Your task to perform on an android device: Go to notification settings Image 0: 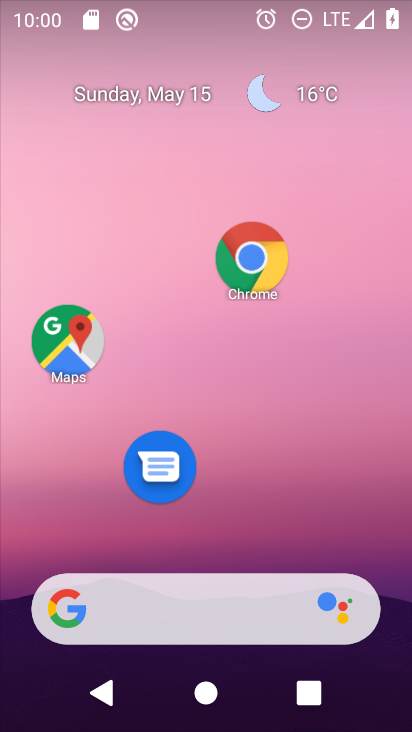
Step 0: drag from (267, 503) to (249, 56)
Your task to perform on an android device: Go to notification settings Image 1: 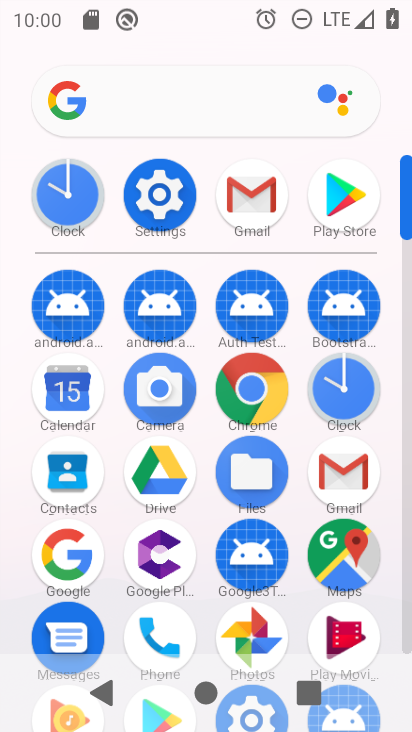
Step 1: click (159, 193)
Your task to perform on an android device: Go to notification settings Image 2: 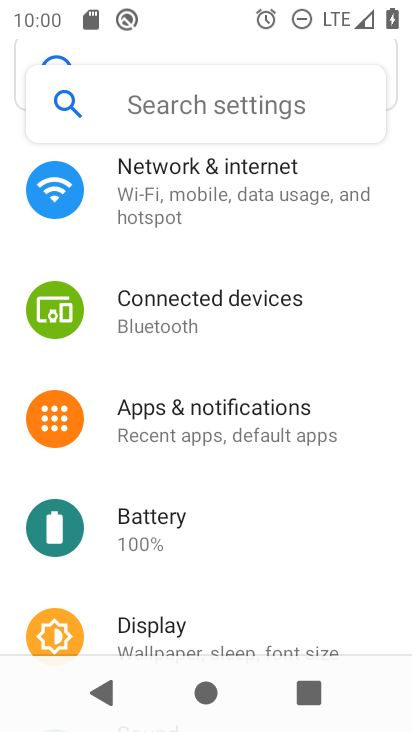
Step 2: click (148, 434)
Your task to perform on an android device: Go to notification settings Image 3: 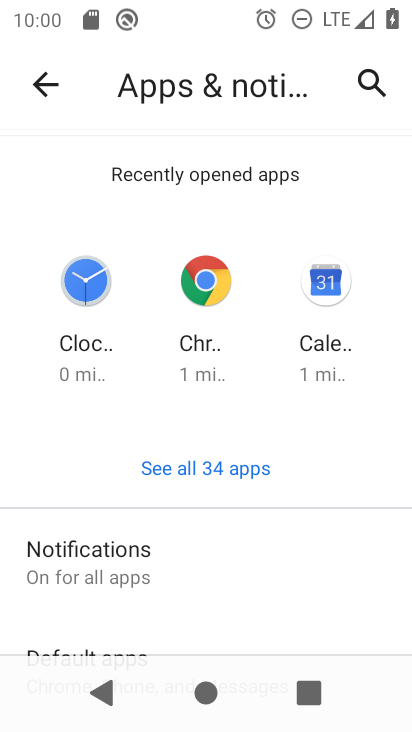
Step 3: task complete